Your task to perform on an android device: turn off picture-in-picture Image 0: 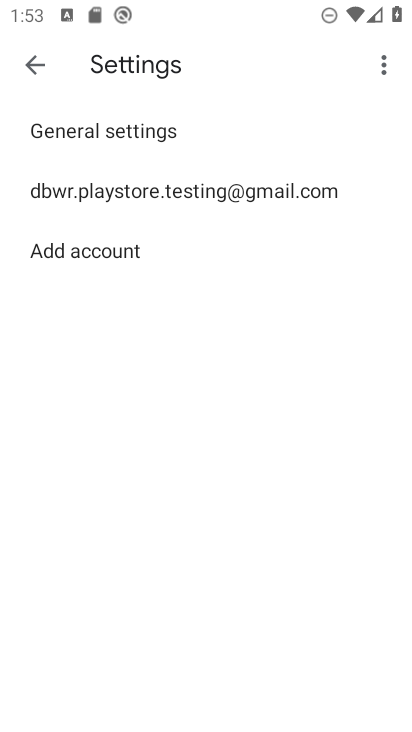
Step 0: press home button
Your task to perform on an android device: turn off picture-in-picture Image 1: 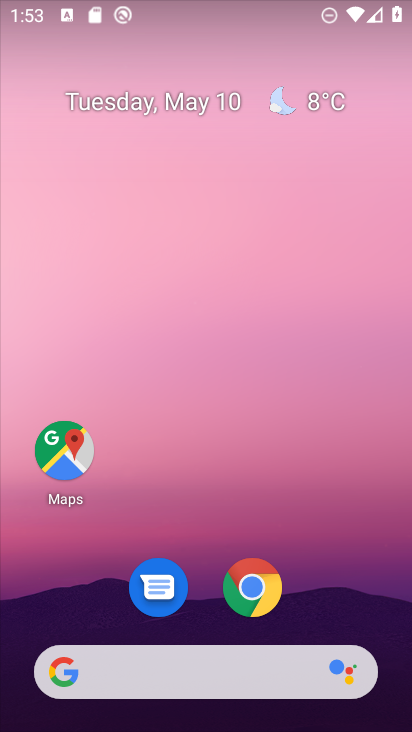
Step 1: click (260, 589)
Your task to perform on an android device: turn off picture-in-picture Image 2: 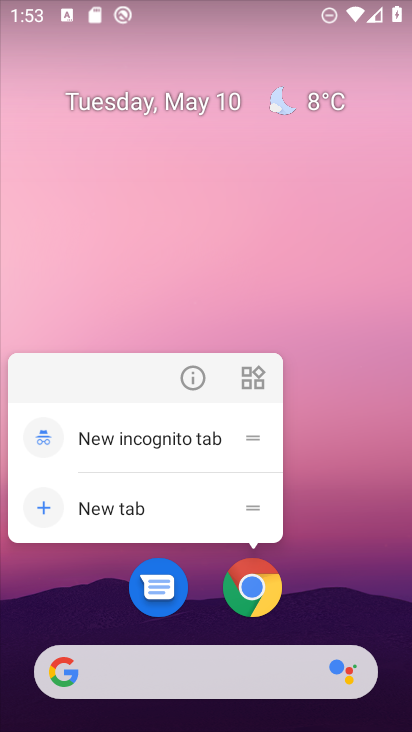
Step 2: click (196, 371)
Your task to perform on an android device: turn off picture-in-picture Image 3: 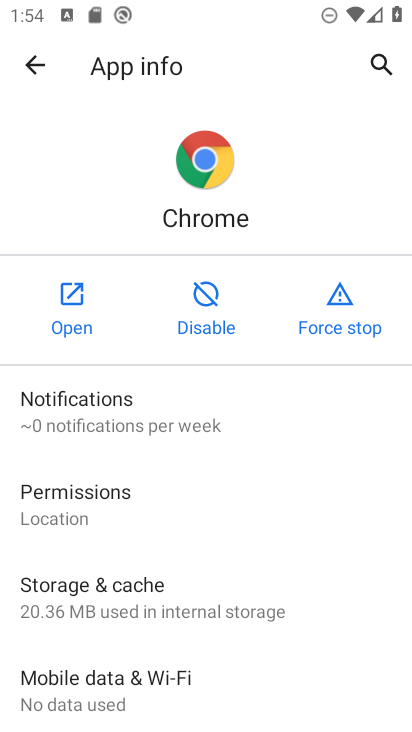
Step 3: drag from (308, 620) to (302, 349)
Your task to perform on an android device: turn off picture-in-picture Image 4: 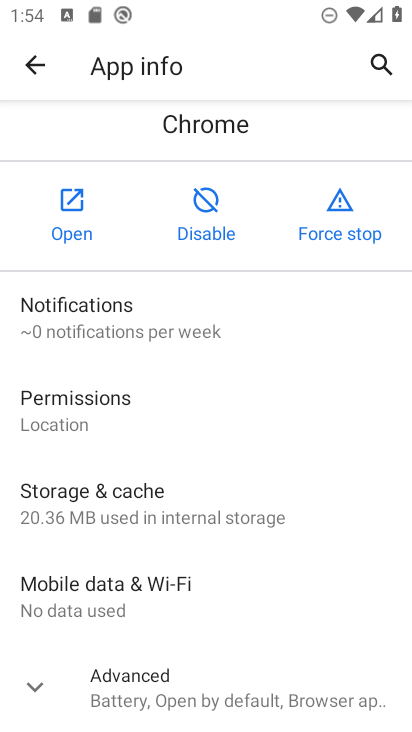
Step 4: drag from (287, 634) to (258, 268)
Your task to perform on an android device: turn off picture-in-picture Image 5: 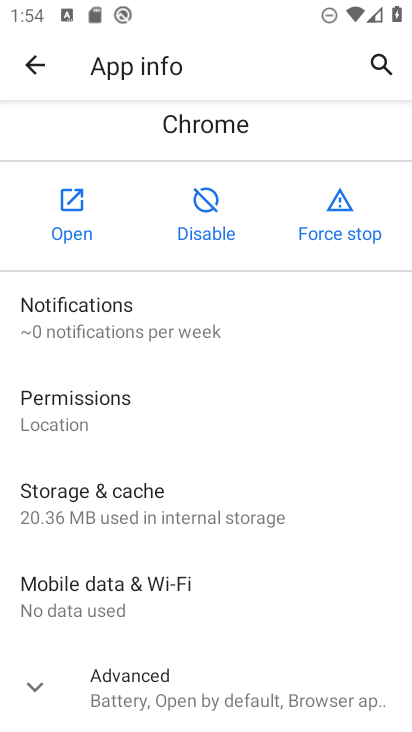
Step 5: click (32, 686)
Your task to perform on an android device: turn off picture-in-picture Image 6: 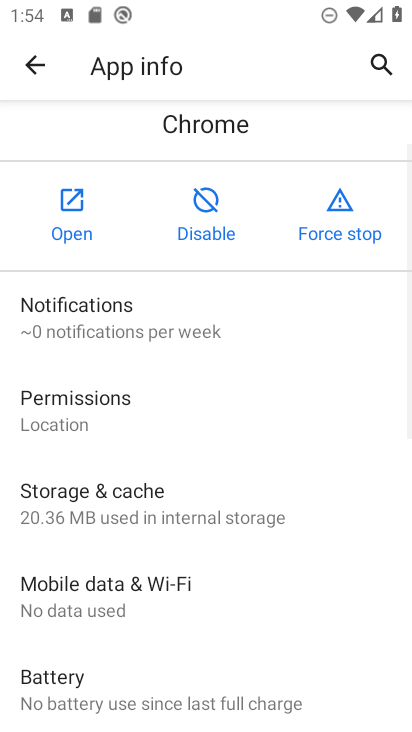
Step 6: drag from (350, 639) to (334, 329)
Your task to perform on an android device: turn off picture-in-picture Image 7: 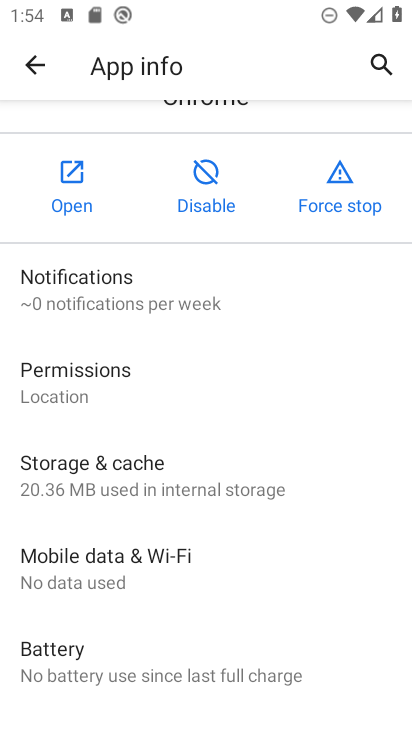
Step 7: drag from (349, 677) to (361, 294)
Your task to perform on an android device: turn off picture-in-picture Image 8: 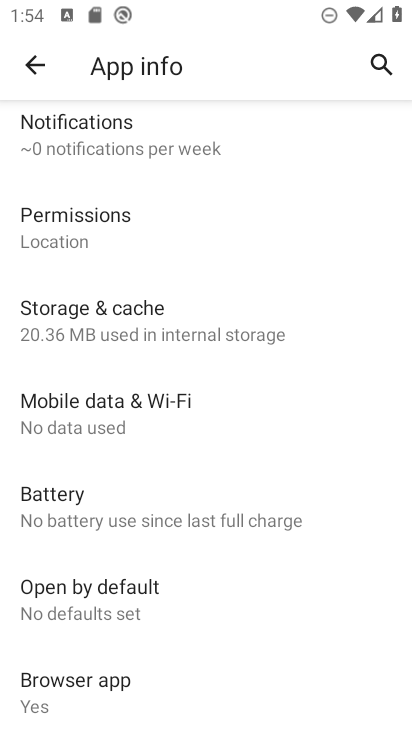
Step 8: drag from (310, 658) to (305, 275)
Your task to perform on an android device: turn off picture-in-picture Image 9: 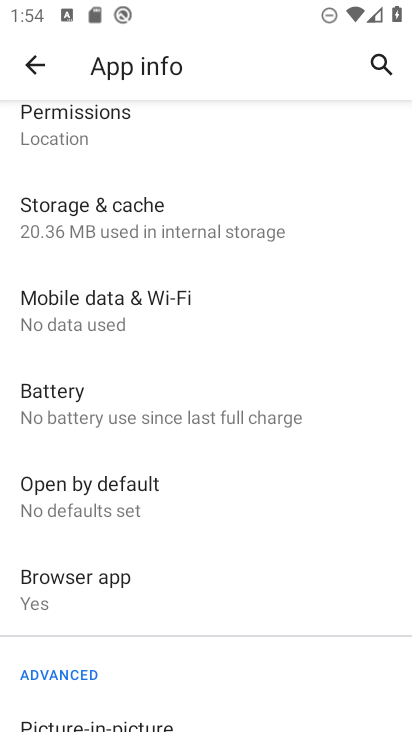
Step 9: drag from (325, 644) to (313, 280)
Your task to perform on an android device: turn off picture-in-picture Image 10: 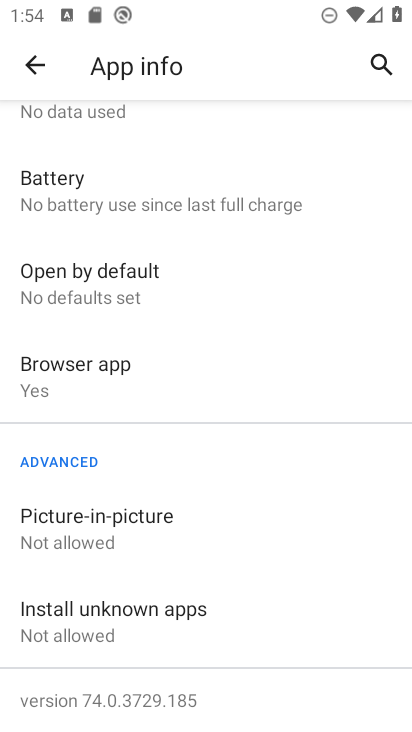
Step 10: click (75, 531)
Your task to perform on an android device: turn off picture-in-picture Image 11: 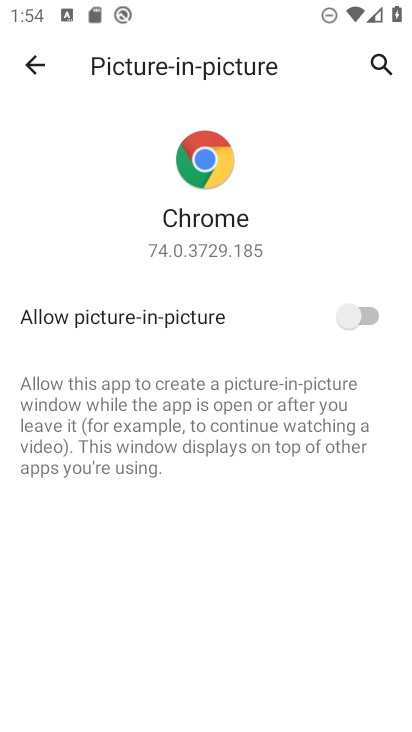
Step 11: task complete